Your task to perform on an android device: open a bookmark in the chrome app Image 0: 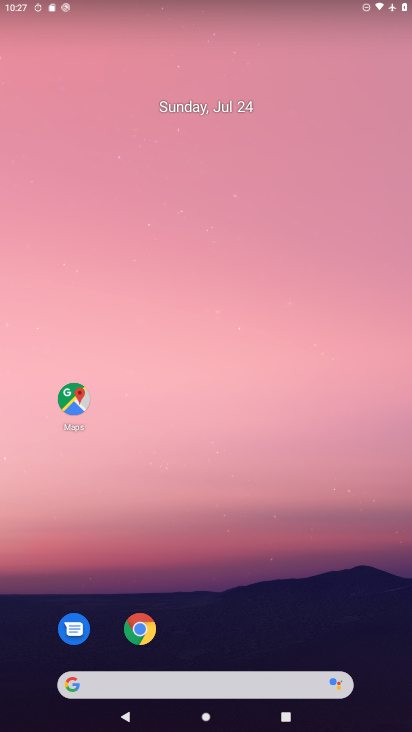
Step 0: drag from (234, 519) to (270, 150)
Your task to perform on an android device: open a bookmark in the chrome app Image 1: 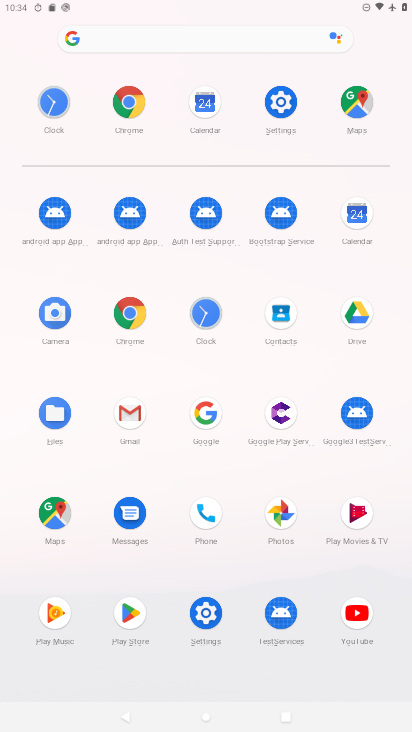
Step 1: click (119, 323)
Your task to perform on an android device: open a bookmark in the chrome app Image 2: 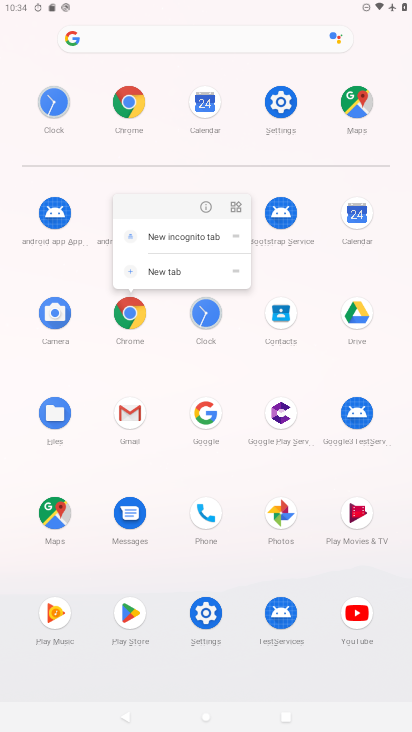
Step 2: click (134, 319)
Your task to perform on an android device: open a bookmark in the chrome app Image 3: 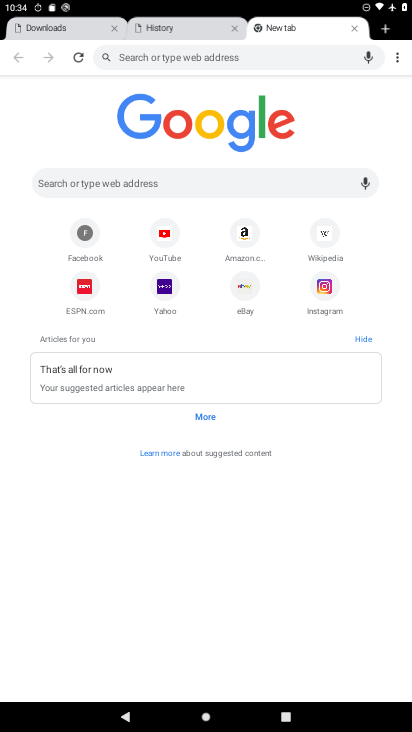
Step 3: click (395, 63)
Your task to perform on an android device: open a bookmark in the chrome app Image 4: 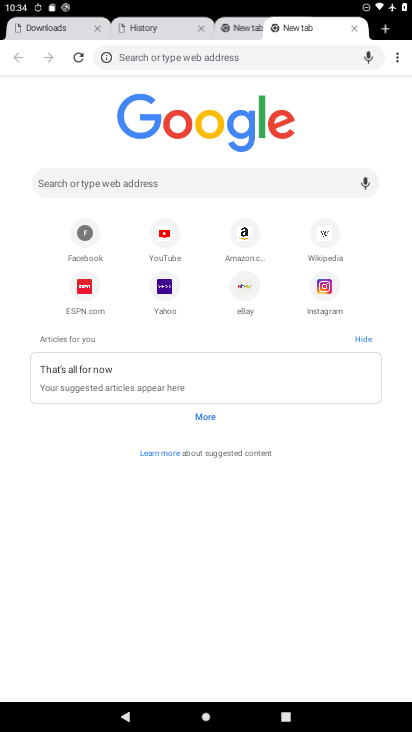
Step 4: click (393, 57)
Your task to perform on an android device: open a bookmark in the chrome app Image 5: 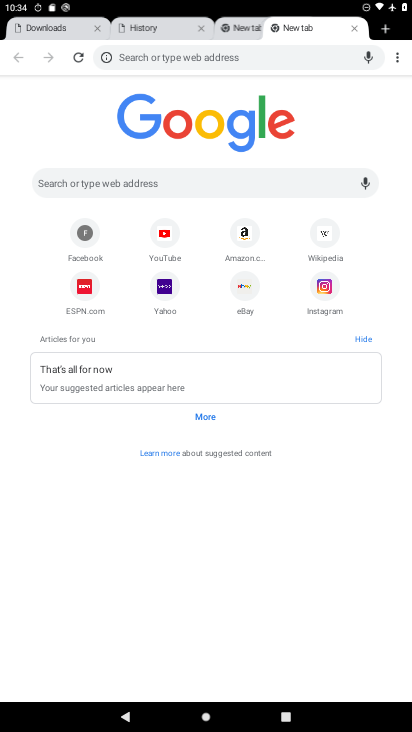
Step 5: click (398, 68)
Your task to perform on an android device: open a bookmark in the chrome app Image 6: 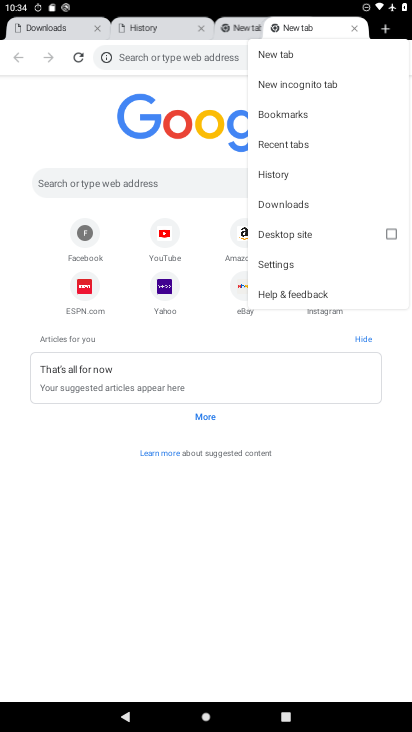
Step 6: click (281, 115)
Your task to perform on an android device: open a bookmark in the chrome app Image 7: 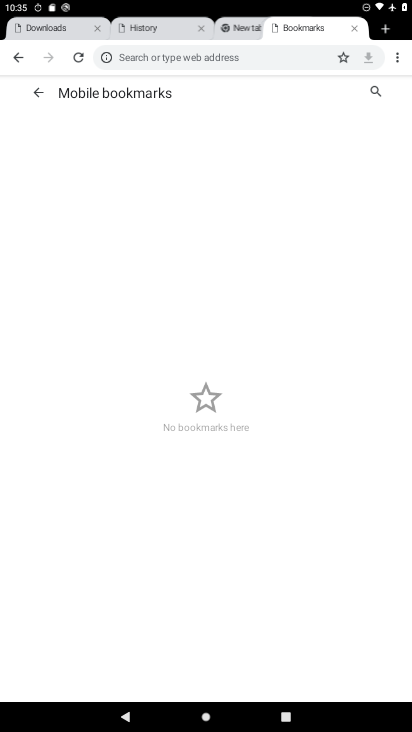
Step 7: task complete